Your task to perform on an android device: Open calendar and show me the second week of next month Image 0: 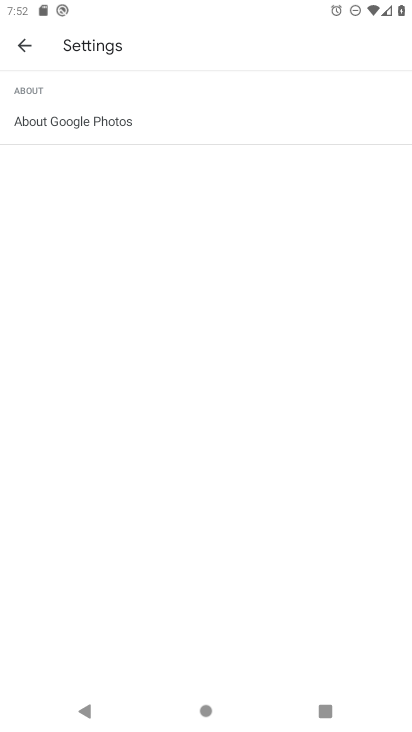
Step 0: press home button
Your task to perform on an android device: Open calendar and show me the second week of next month Image 1: 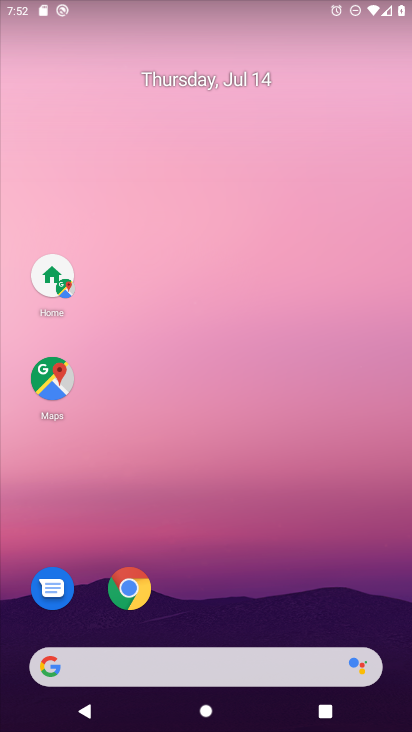
Step 1: drag from (63, 632) to (180, 184)
Your task to perform on an android device: Open calendar and show me the second week of next month Image 2: 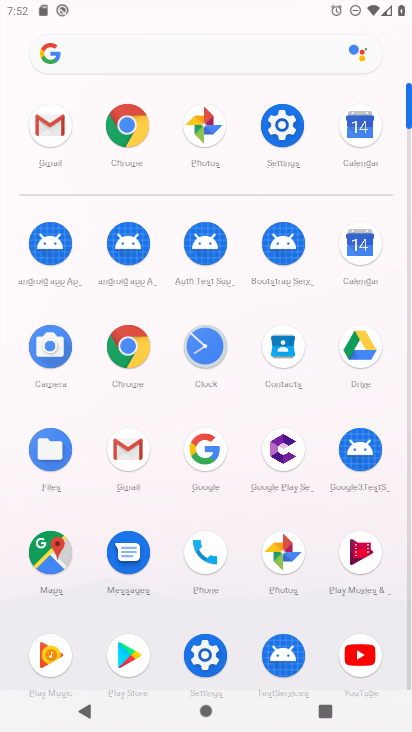
Step 2: click (370, 256)
Your task to perform on an android device: Open calendar and show me the second week of next month Image 3: 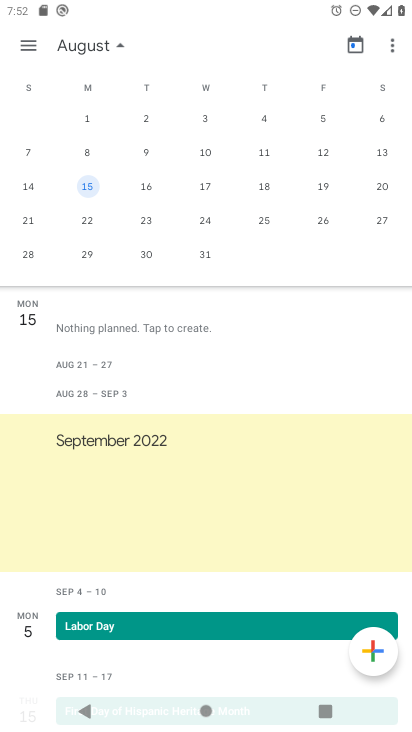
Step 3: click (83, 152)
Your task to perform on an android device: Open calendar and show me the second week of next month Image 4: 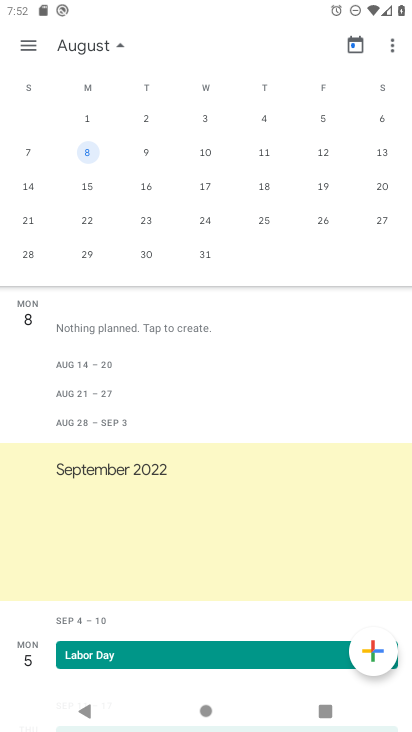
Step 4: task complete